Your task to perform on an android device: Open battery settings Image 0: 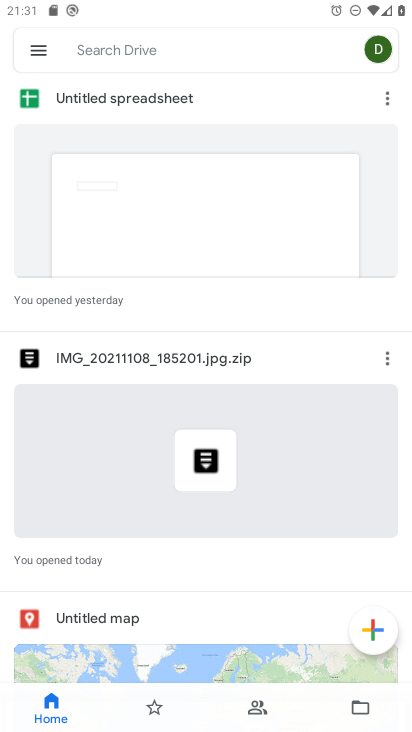
Step 0: press home button
Your task to perform on an android device: Open battery settings Image 1: 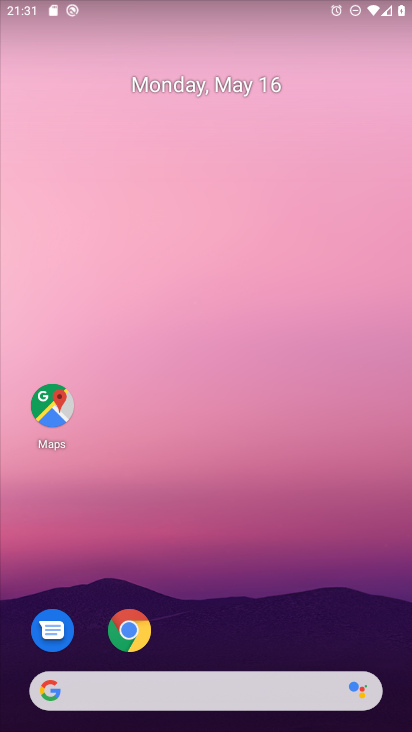
Step 1: drag from (269, 582) to (266, 217)
Your task to perform on an android device: Open battery settings Image 2: 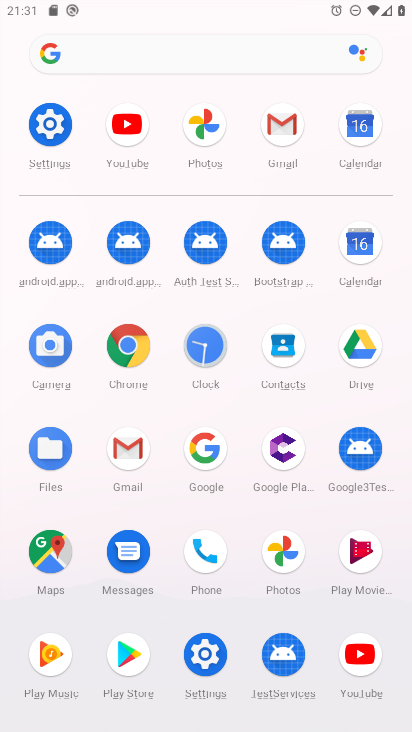
Step 2: click (43, 114)
Your task to perform on an android device: Open battery settings Image 3: 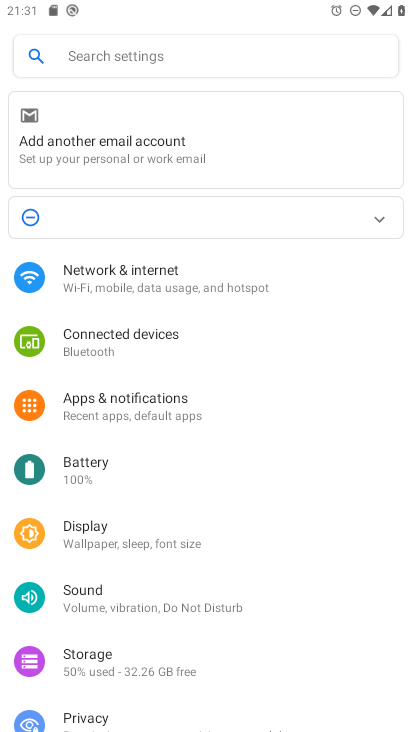
Step 3: click (93, 463)
Your task to perform on an android device: Open battery settings Image 4: 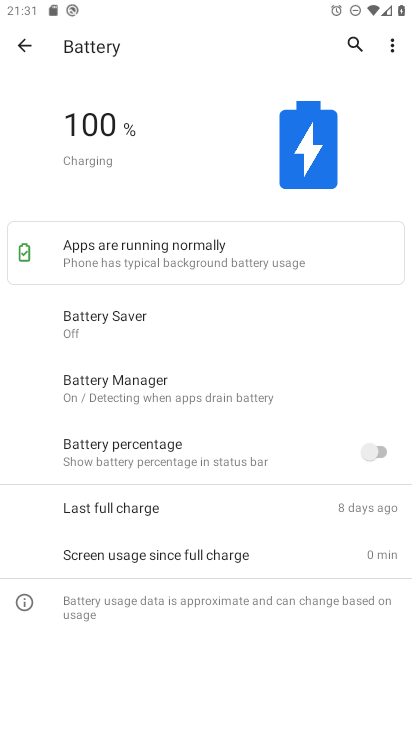
Step 4: task complete